Your task to perform on an android device: Open accessibility settings Image 0: 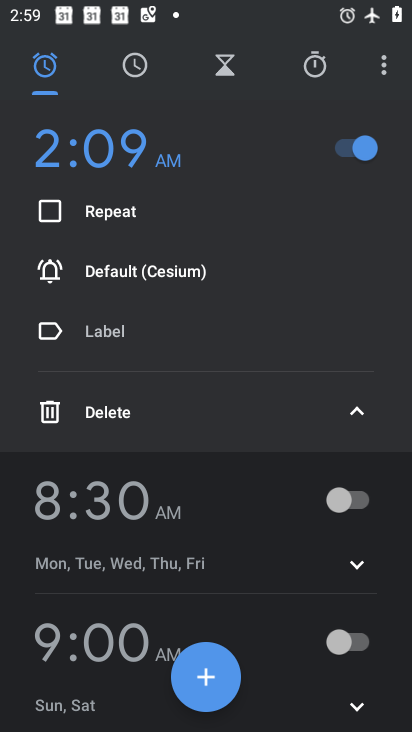
Step 0: press home button
Your task to perform on an android device: Open accessibility settings Image 1: 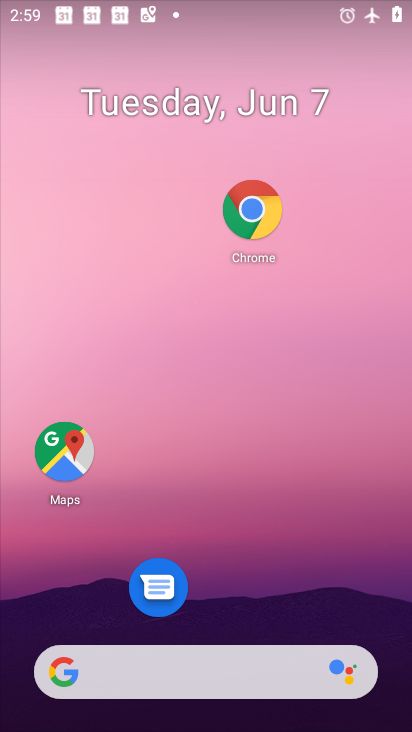
Step 1: drag from (232, 554) to (230, 114)
Your task to perform on an android device: Open accessibility settings Image 2: 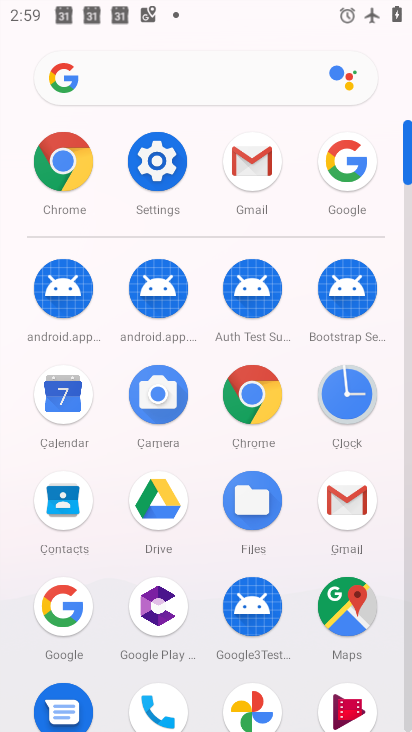
Step 2: click (176, 169)
Your task to perform on an android device: Open accessibility settings Image 3: 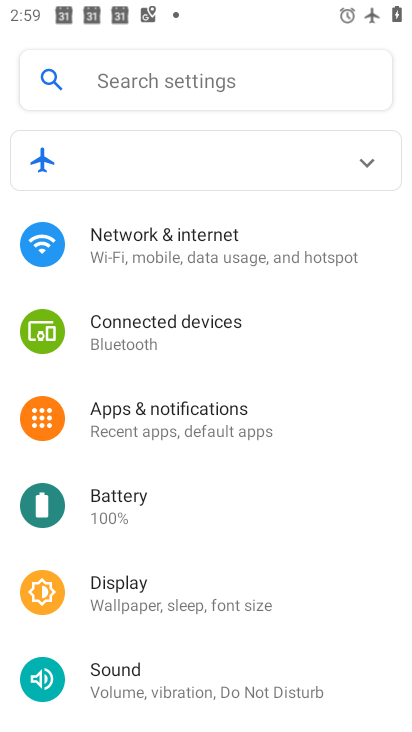
Step 3: drag from (208, 553) to (225, 335)
Your task to perform on an android device: Open accessibility settings Image 4: 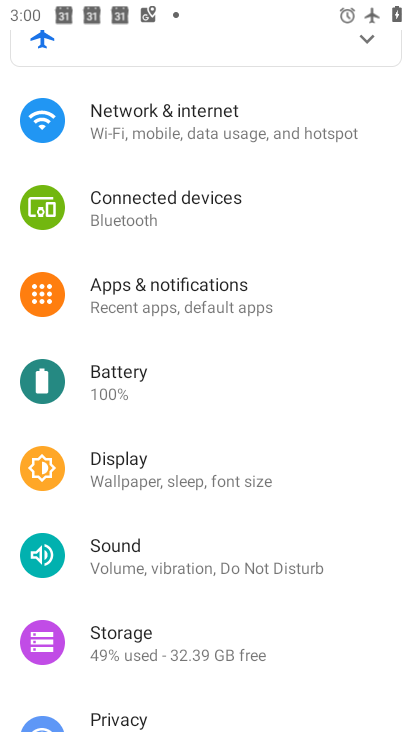
Step 4: drag from (218, 460) to (218, 133)
Your task to perform on an android device: Open accessibility settings Image 5: 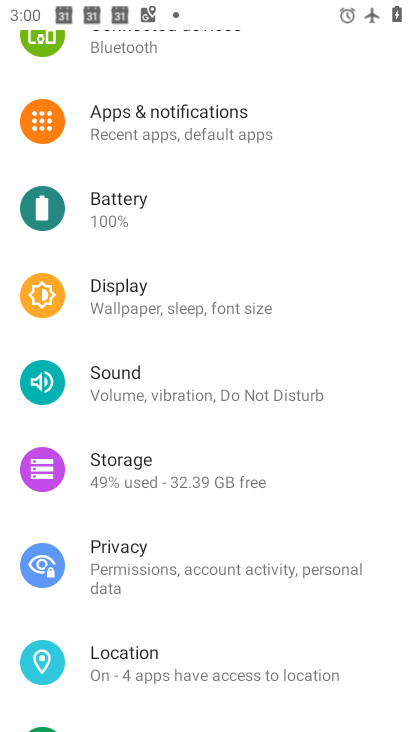
Step 5: drag from (233, 448) to (285, 170)
Your task to perform on an android device: Open accessibility settings Image 6: 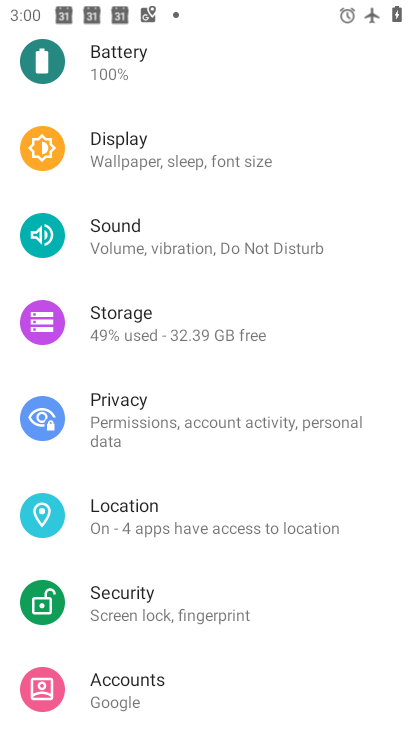
Step 6: drag from (214, 605) to (272, 169)
Your task to perform on an android device: Open accessibility settings Image 7: 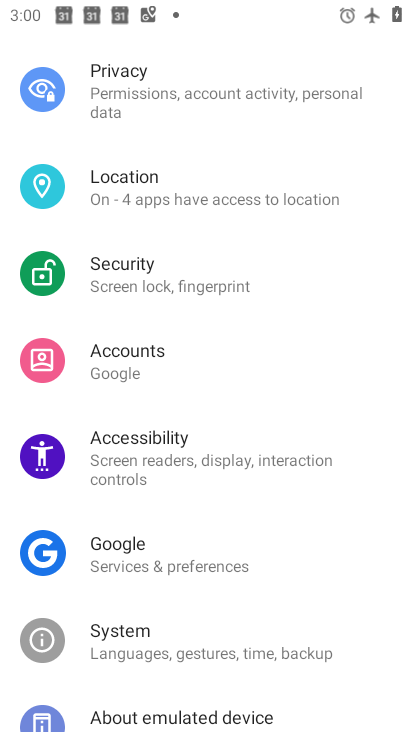
Step 7: drag from (182, 626) to (191, 230)
Your task to perform on an android device: Open accessibility settings Image 8: 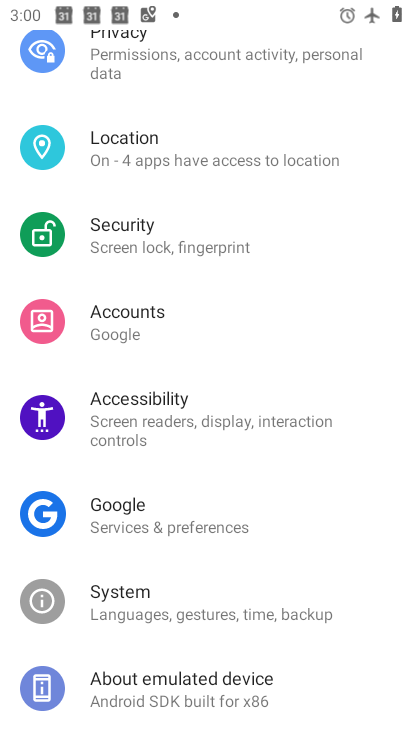
Step 8: click (223, 429)
Your task to perform on an android device: Open accessibility settings Image 9: 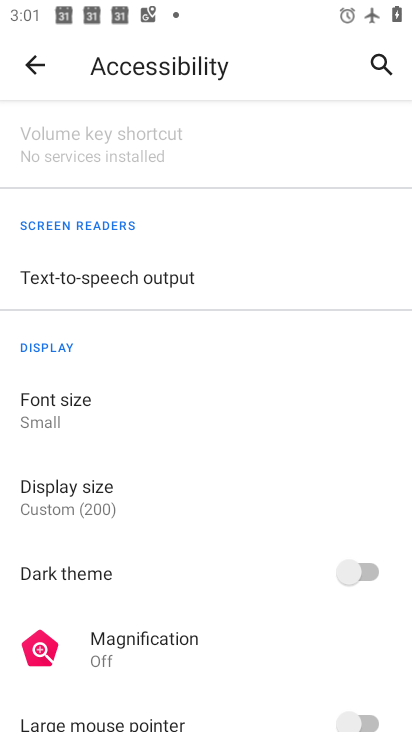
Step 9: task complete